Your task to perform on an android device: Search for "bose soundlink mini" on target.com, select the first entry, add it to the cart, then select checkout. Image 0: 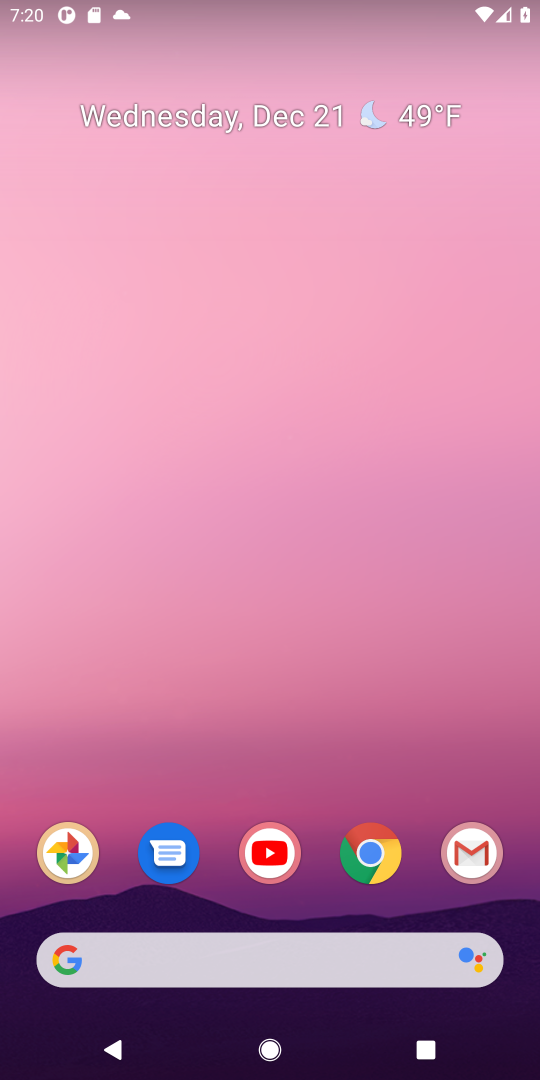
Step 0: click (368, 864)
Your task to perform on an android device: Search for "bose soundlink mini" on target.com, select the first entry, add it to the cart, then select checkout. Image 1: 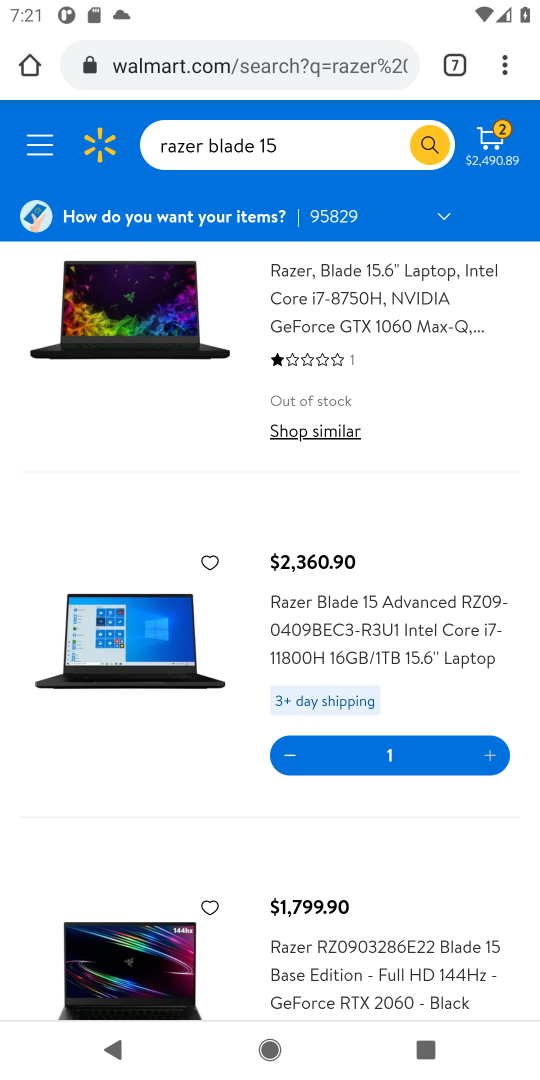
Step 1: click (459, 61)
Your task to perform on an android device: Search for "bose soundlink mini" on target.com, select the first entry, add it to the cart, then select checkout. Image 2: 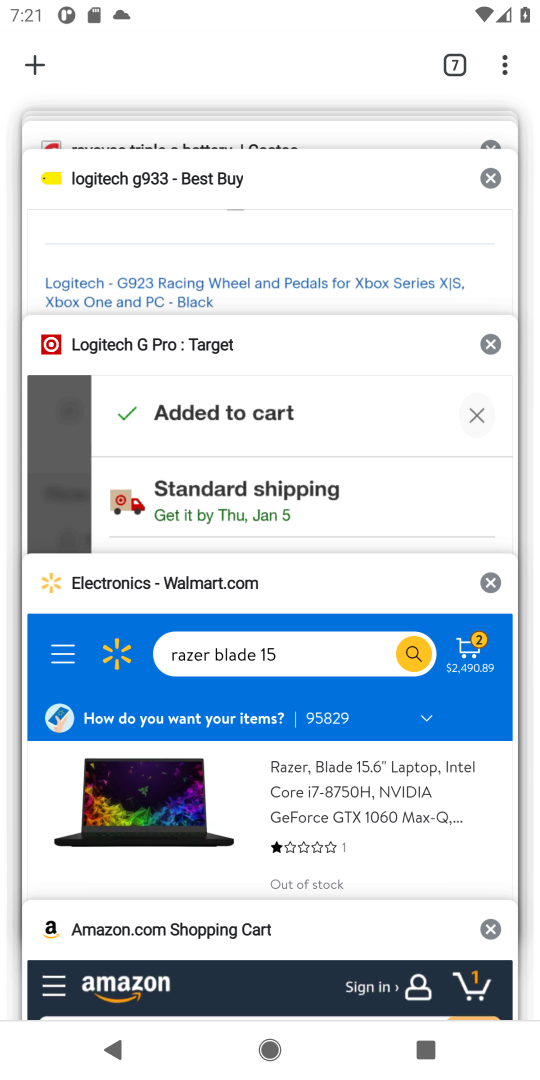
Step 2: click (276, 376)
Your task to perform on an android device: Search for "bose soundlink mini" on target.com, select the first entry, add it to the cart, then select checkout. Image 3: 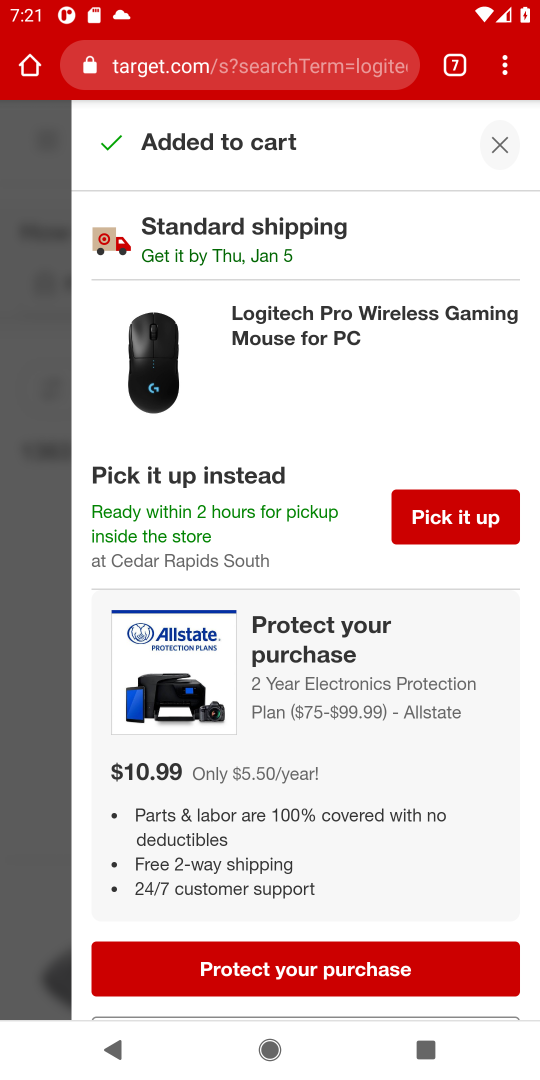
Step 3: click (489, 136)
Your task to perform on an android device: Search for "bose soundlink mini" on target.com, select the first entry, add it to the cart, then select checkout. Image 4: 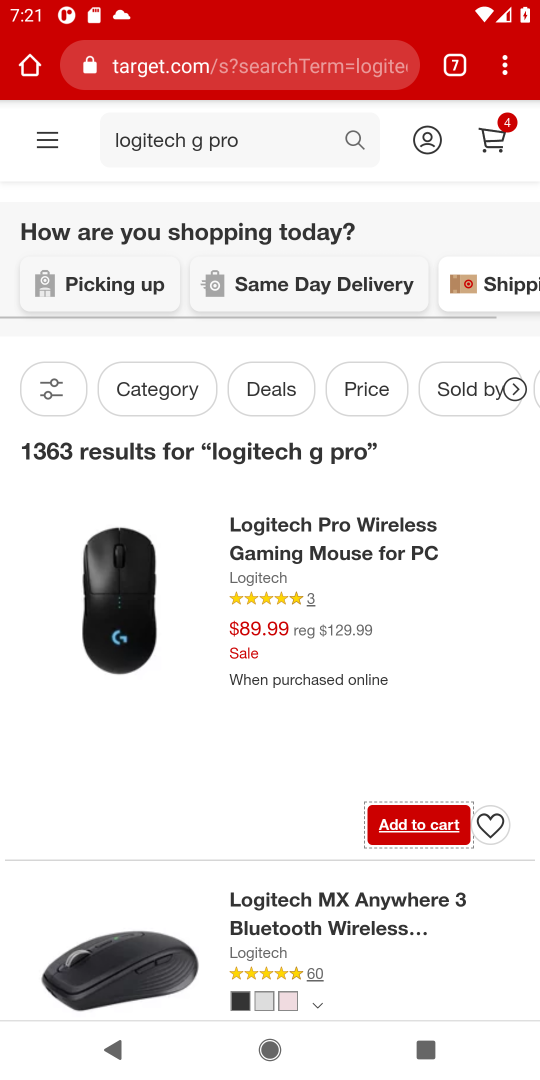
Step 4: click (261, 137)
Your task to perform on an android device: Search for "bose soundlink mini" on target.com, select the first entry, add it to the cart, then select checkout. Image 5: 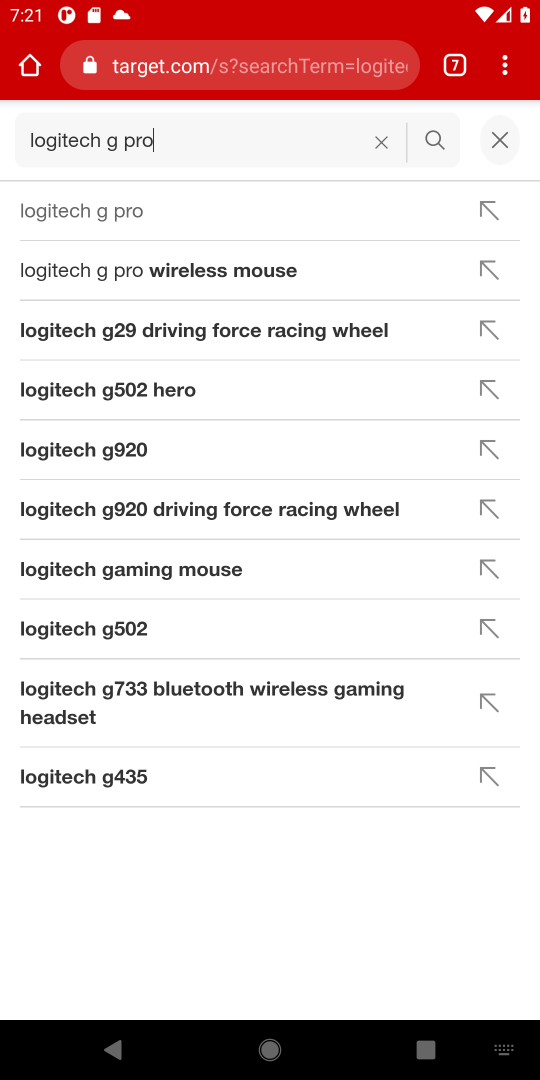
Step 5: click (382, 143)
Your task to perform on an android device: Search for "bose soundlink mini" on target.com, select the first entry, add it to the cart, then select checkout. Image 6: 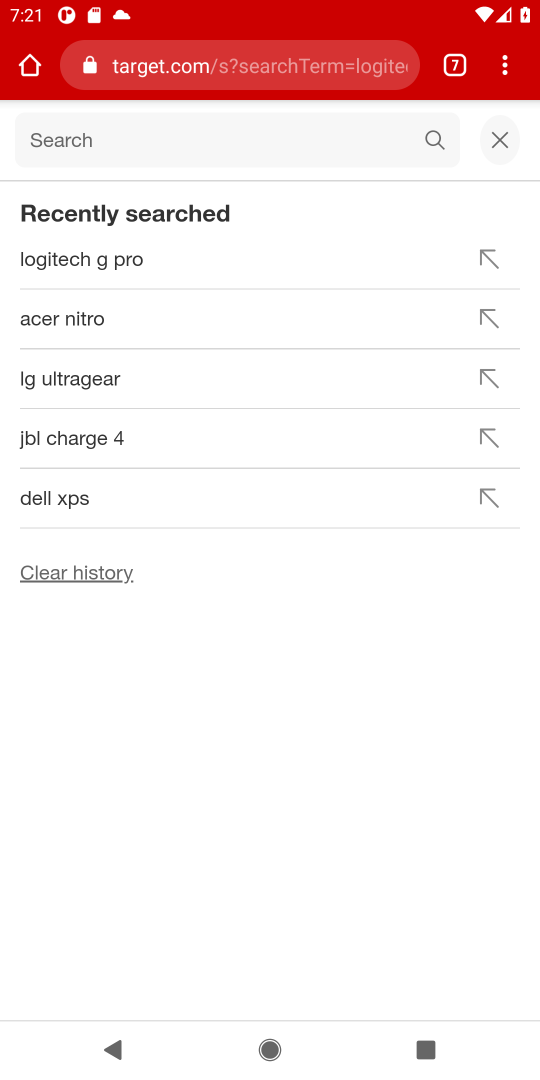
Step 6: type "bose soundlink mini"
Your task to perform on an android device: Search for "bose soundlink mini" on target.com, select the first entry, add it to the cart, then select checkout. Image 7: 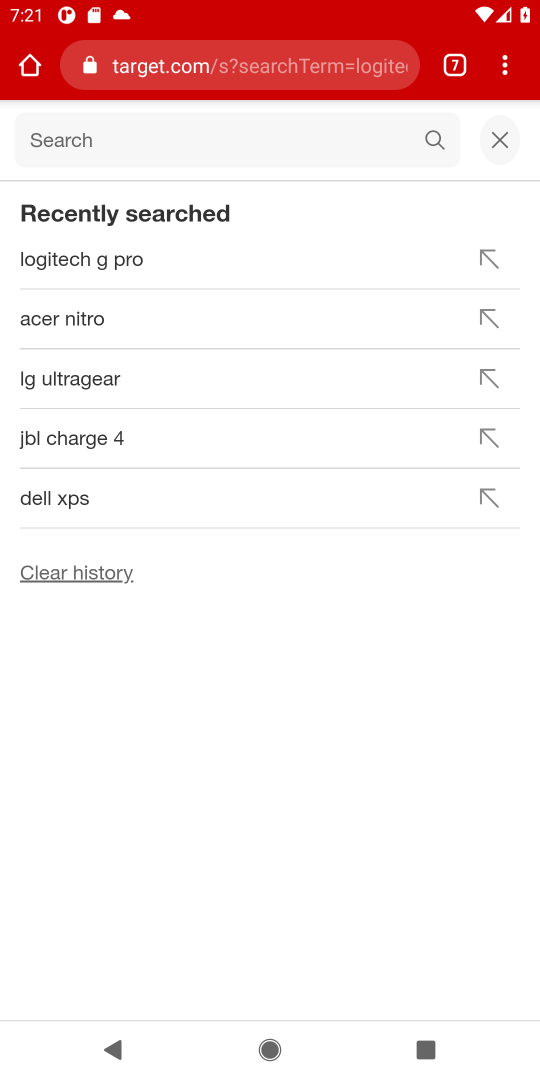
Step 7: click (108, 147)
Your task to perform on an android device: Search for "bose soundlink mini" on target.com, select the first entry, add it to the cart, then select checkout. Image 8: 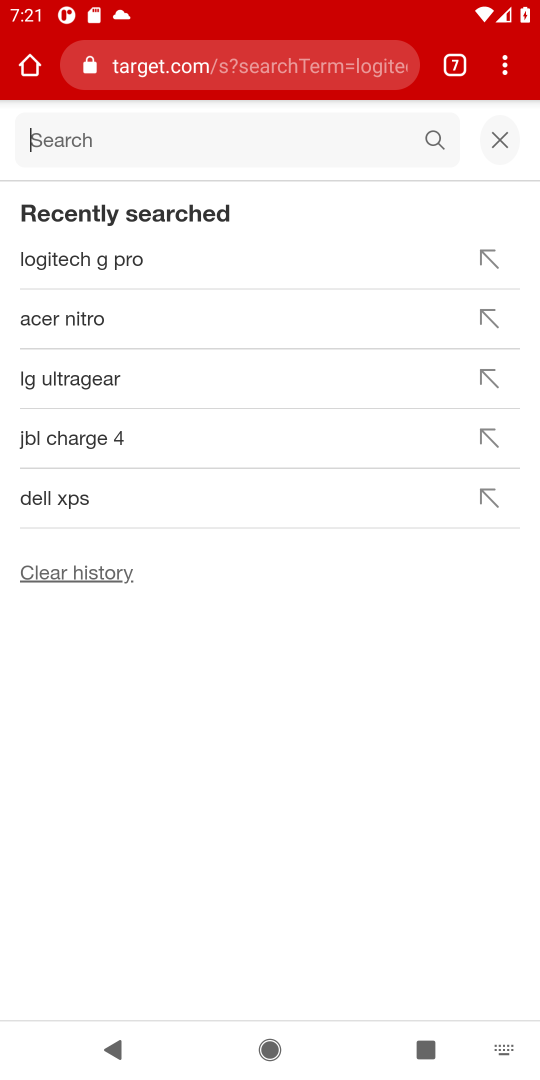
Step 8: click (108, 147)
Your task to perform on an android device: Search for "bose soundlink mini" on target.com, select the first entry, add it to the cart, then select checkout. Image 9: 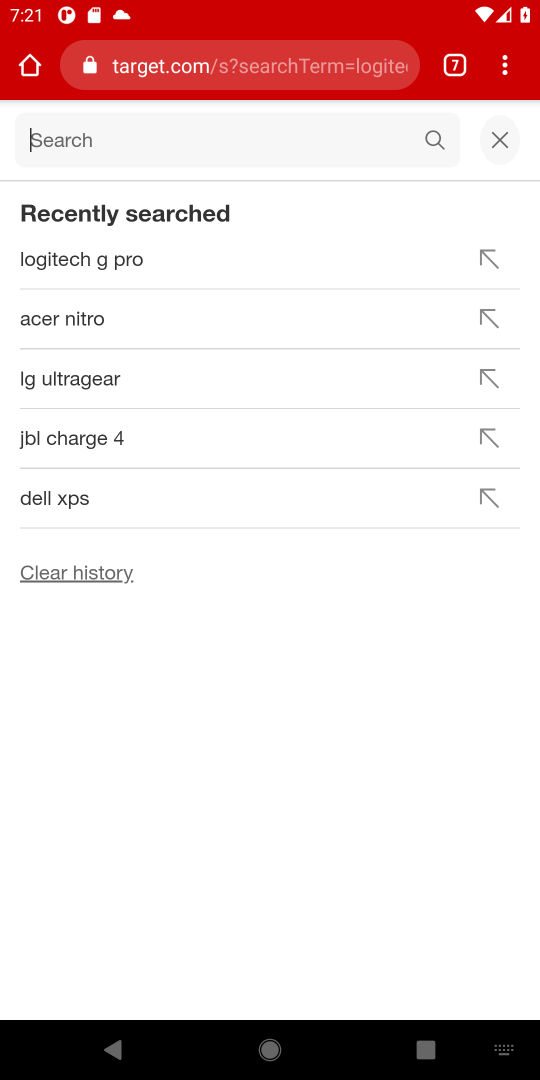
Step 9: type "bose soundlink mini"
Your task to perform on an android device: Search for "bose soundlink mini" on target.com, select the first entry, add it to the cart, then select checkout. Image 10: 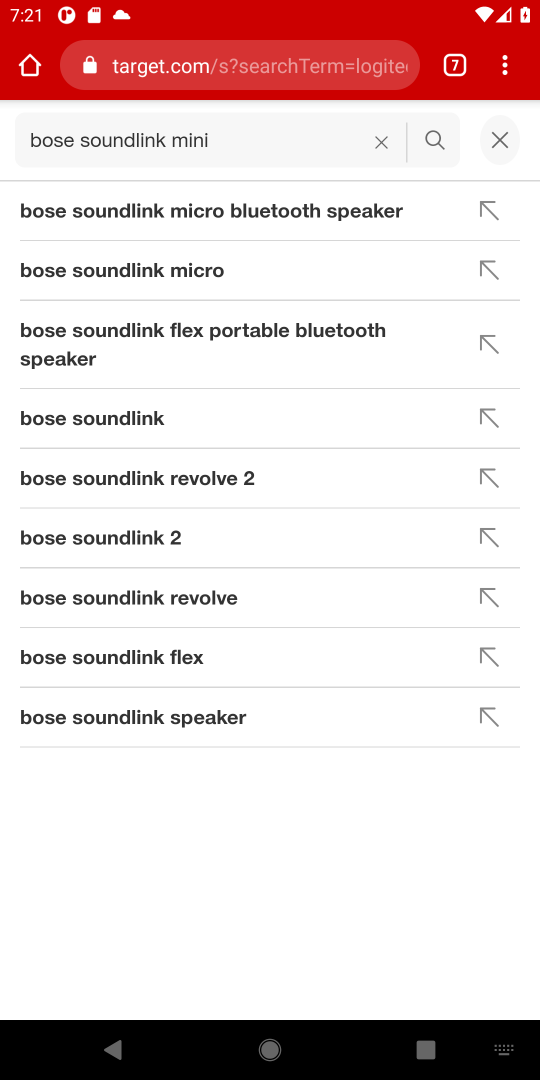
Step 10: click (431, 128)
Your task to perform on an android device: Search for "bose soundlink mini" on target.com, select the first entry, add it to the cart, then select checkout. Image 11: 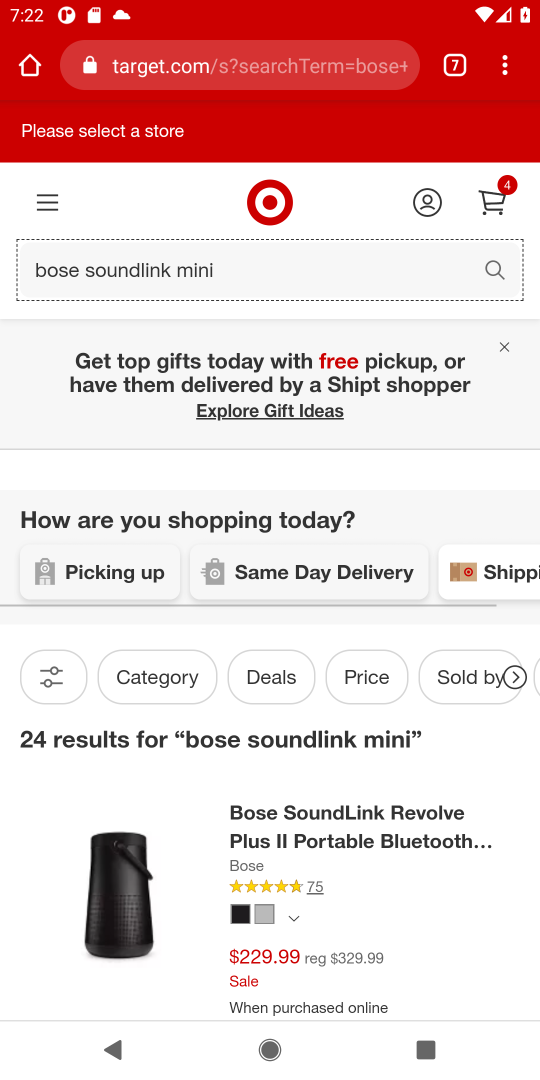
Step 11: drag from (415, 939) to (401, 433)
Your task to perform on an android device: Search for "bose soundlink mini" on target.com, select the first entry, add it to the cart, then select checkout. Image 12: 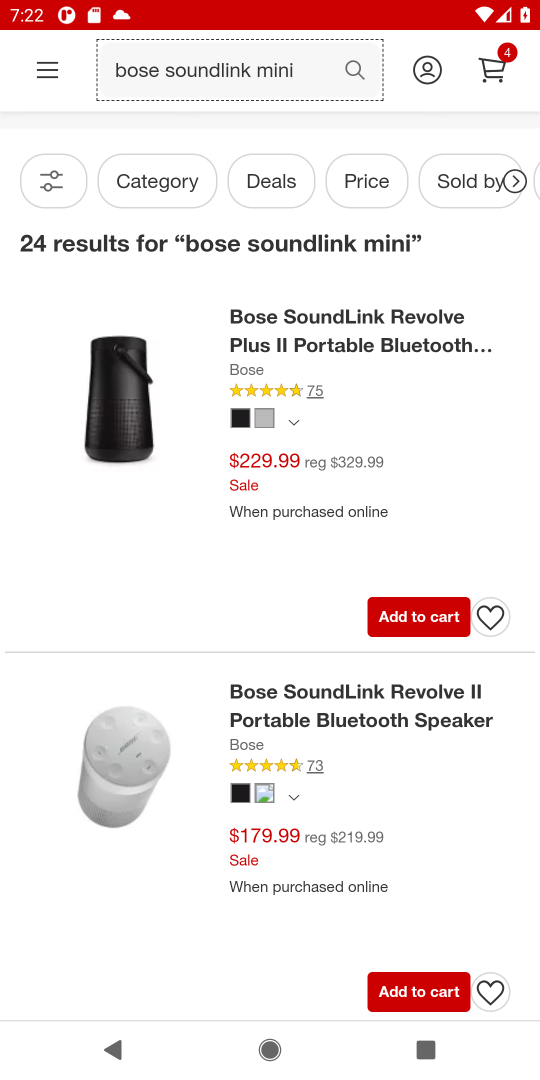
Step 12: click (433, 611)
Your task to perform on an android device: Search for "bose soundlink mini" on target.com, select the first entry, add it to the cart, then select checkout. Image 13: 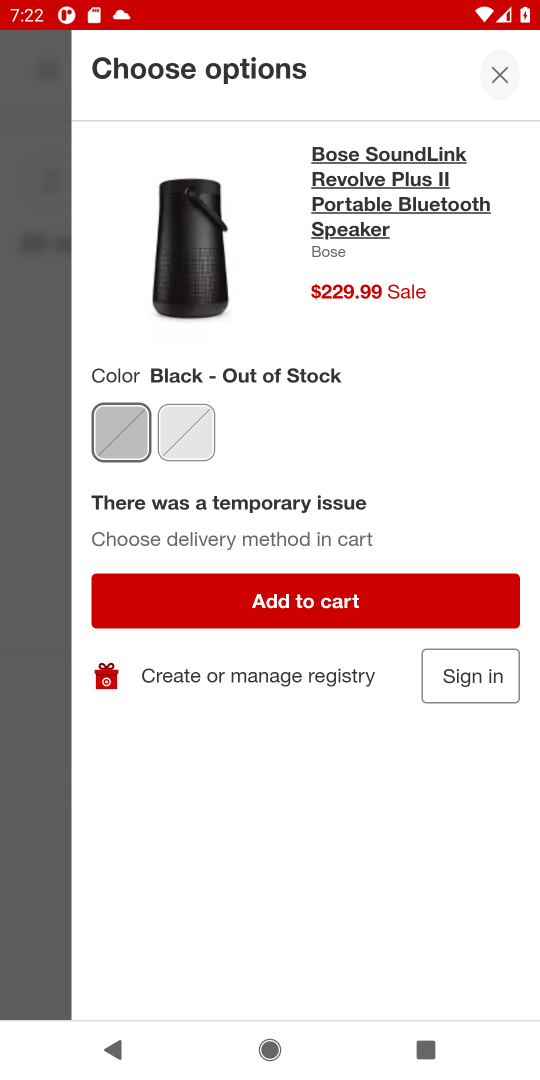
Step 13: click (357, 585)
Your task to perform on an android device: Search for "bose soundlink mini" on target.com, select the first entry, add it to the cart, then select checkout. Image 14: 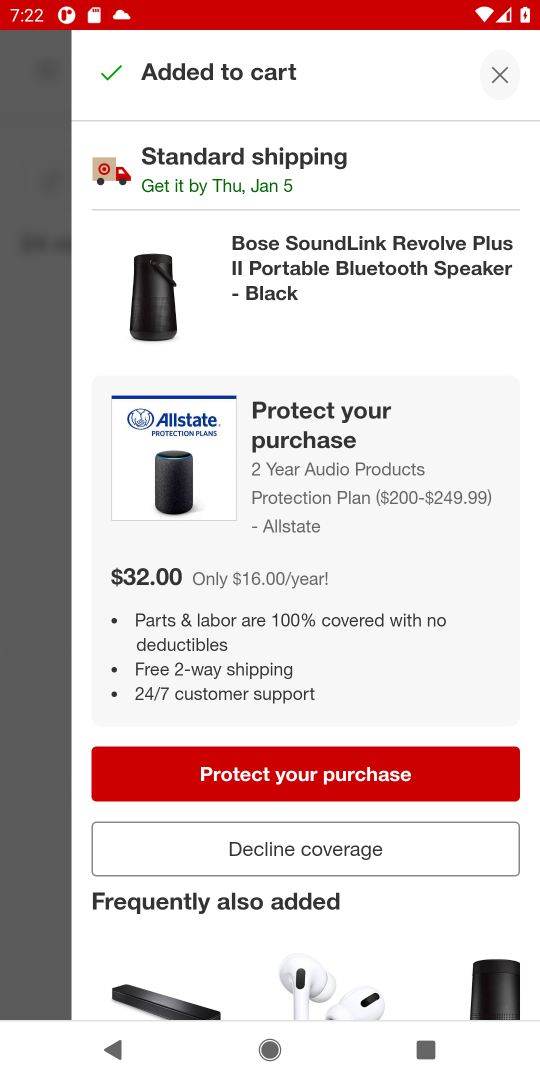
Step 14: task complete